Your task to perform on an android device: What is the recent news? Image 0: 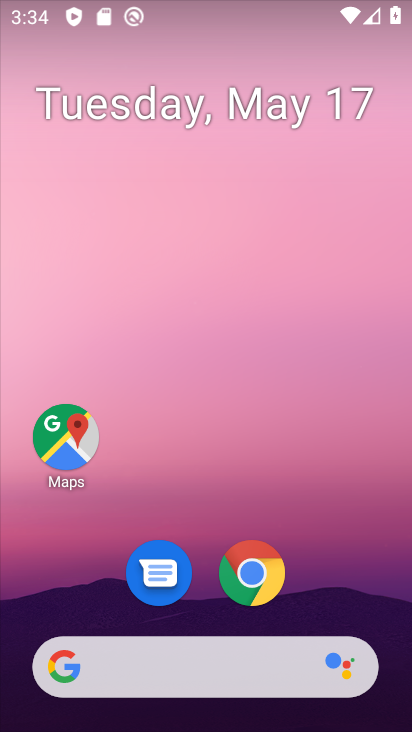
Step 0: click (263, 578)
Your task to perform on an android device: What is the recent news? Image 1: 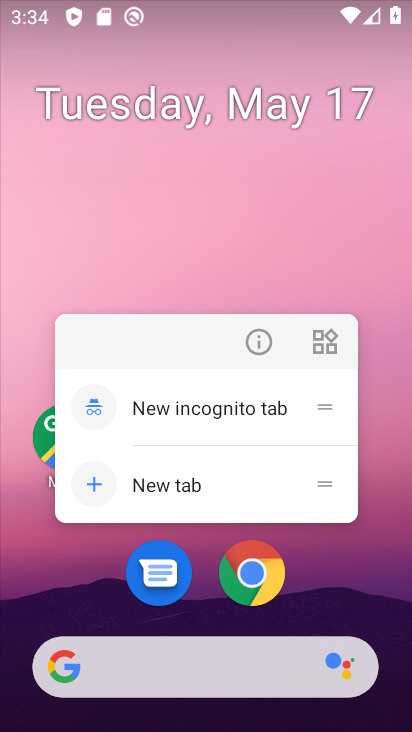
Step 1: click (263, 578)
Your task to perform on an android device: What is the recent news? Image 2: 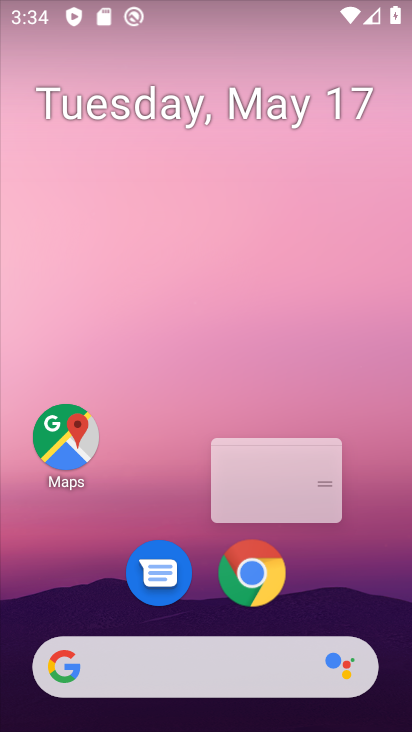
Step 2: click (263, 578)
Your task to perform on an android device: What is the recent news? Image 3: 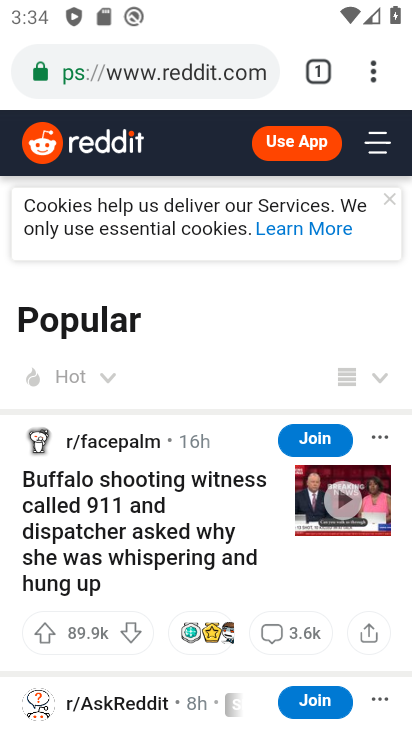
Step 3: click (208, 88)
Your task to perform on an android device: What is the recent news? Image 4: 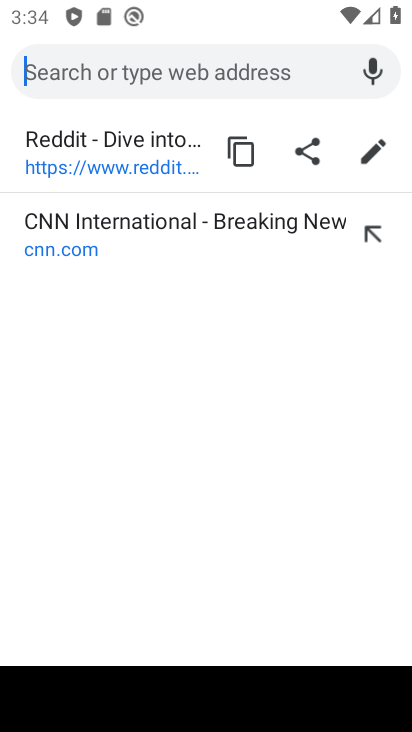
Step 4: type "recent news"
Your task to perform on an android device: What is the recent news? Image 5: 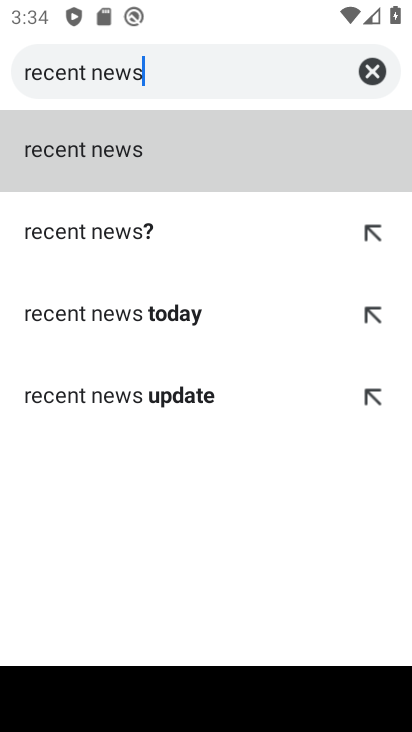
Step 5: click (85, 165)
Your task to perform on an android device: What is the recent news? Image 6: 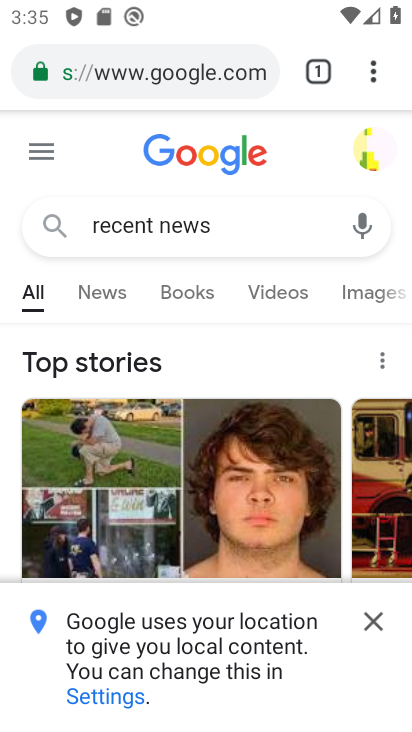
Step 6: click (361, 622)
Your task to perform on an android device: What is the recent news? Image 7: 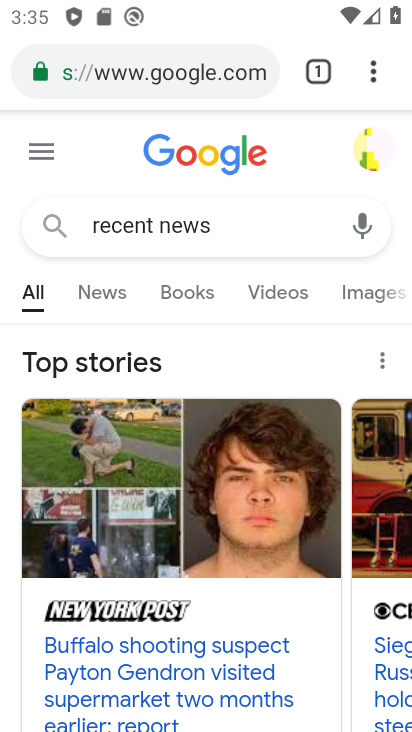
Step 7: task complete